Your task to perform on an android device: Open CNN.com Image 0: 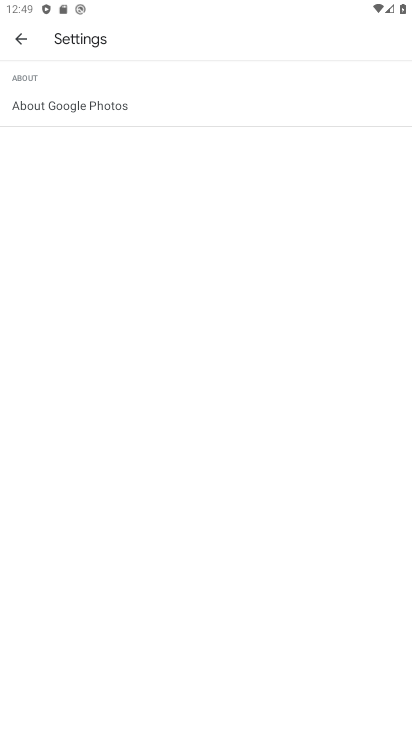
Step 0: press home button
Your task to perform on an android device: Open CNN.com Image 1: 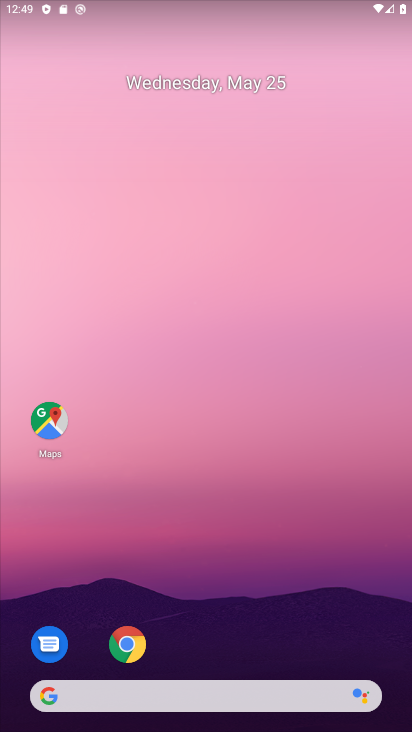
Step 1: click (133, 648)
Your task to perform on an android device: Open CNN.com Image 2: 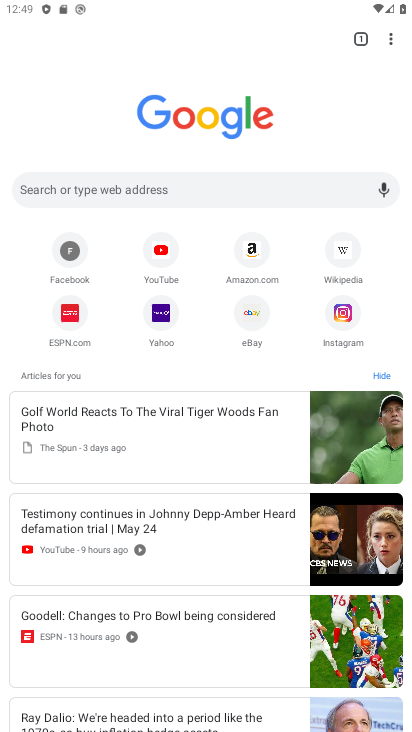
Step 2: click (163, 200)
Your task to perform on an android device: Open CNN.com Image 3: 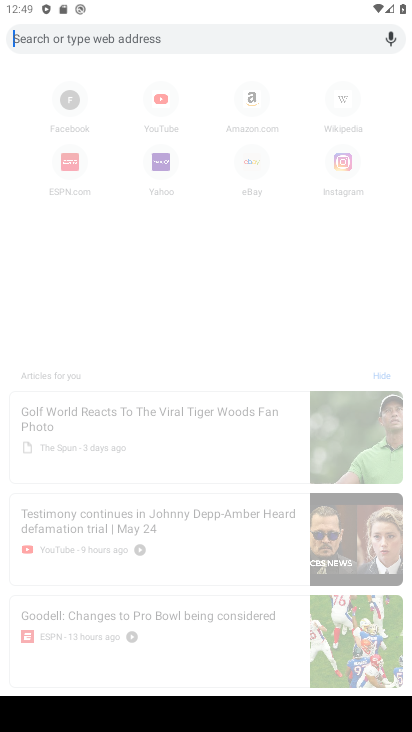
Step 3: type "www.cnn.com"
Your task to perform on an android device: Open CNN.com Image 4: 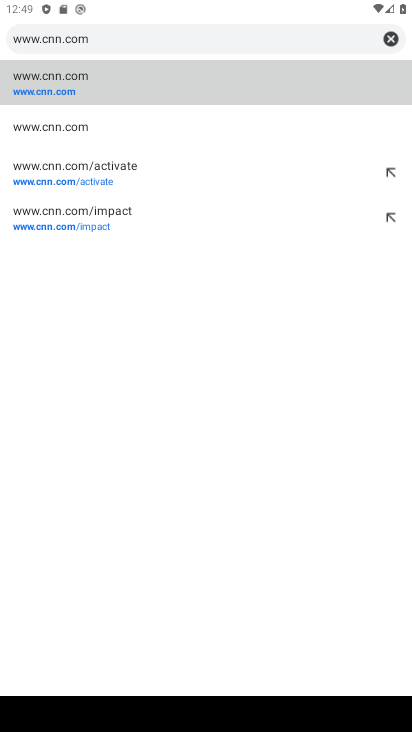
Step 4: click (31, 78)
Your task to perform on an android device: Open CNN.com Image 5: 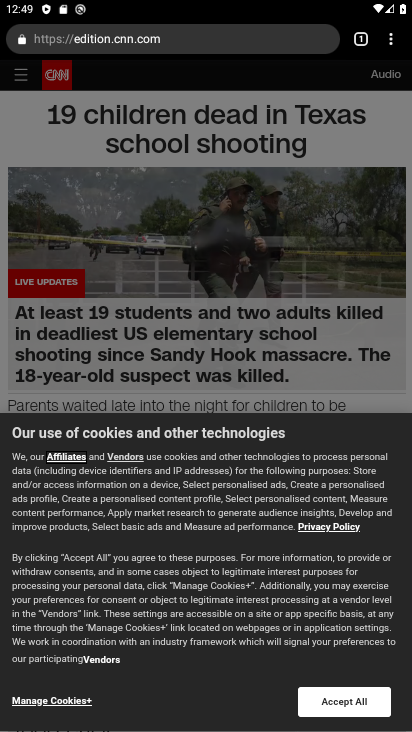
Step 5: task complete